Your task to perform on an android device: Open Maps and search for coffee Image 0: 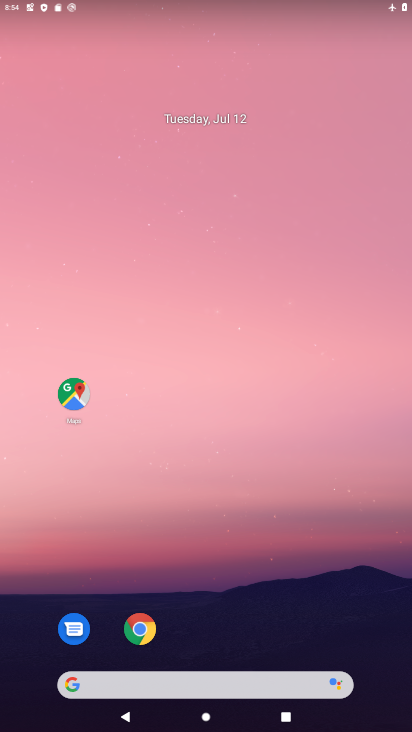
Step 0: drag from (243, 635) to (225, 229)
Your task to perform on an android device: Open Maps and search for coffee Image 1: 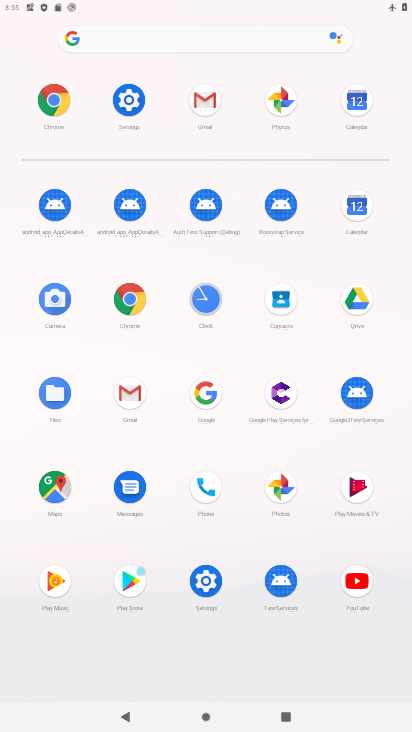
Step 1: click (58, 492)
Your task to perform on an android device: Open Maps and search for coffee Image 2: 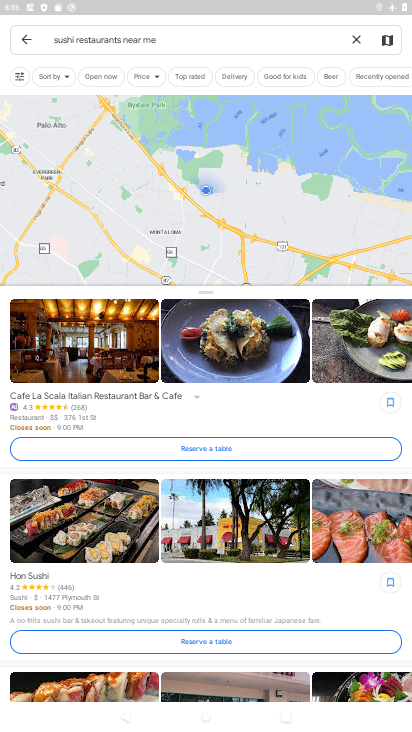
Step 2: click (359, 36)
Your task to perform on an android device: Open Maps and search for coffee Image 3: 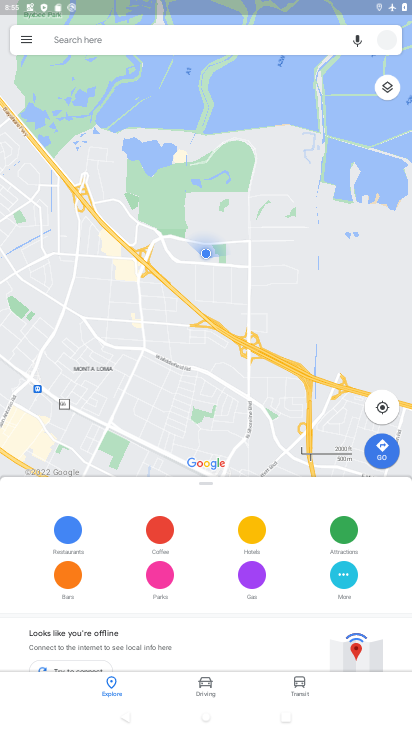
Step 3: click (156, 32)
Your task to perform on an android device: Open Maps and search for coffee Image 4: 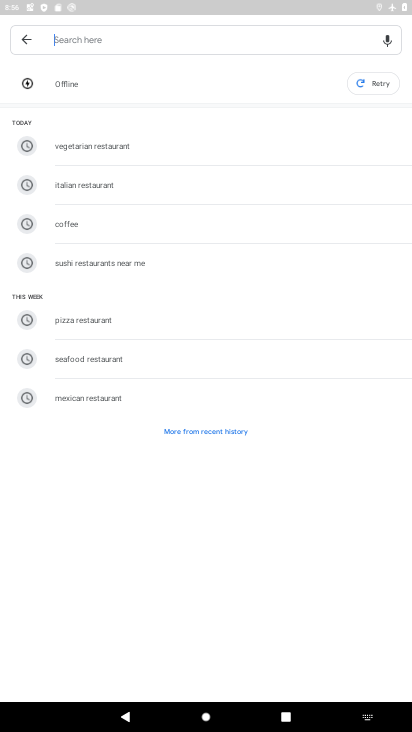
Step 4: click (97, 229)
Your task to perform on an android device: Open Maps and search for coffee Image 5: 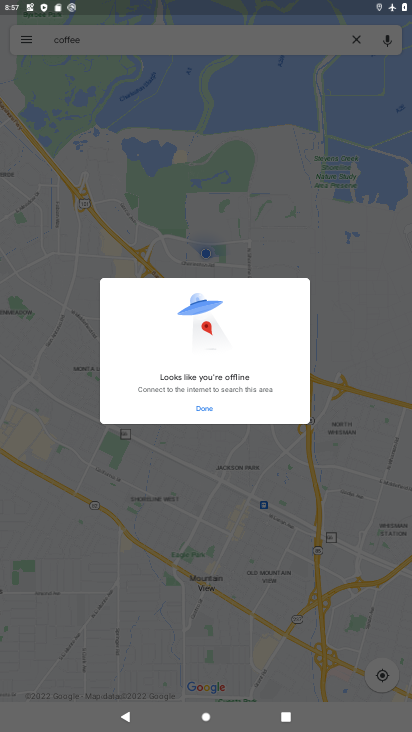
Step 5: click (209, 395)
Your task to perform on an android device: Open Maps and search for coffee Image 6: 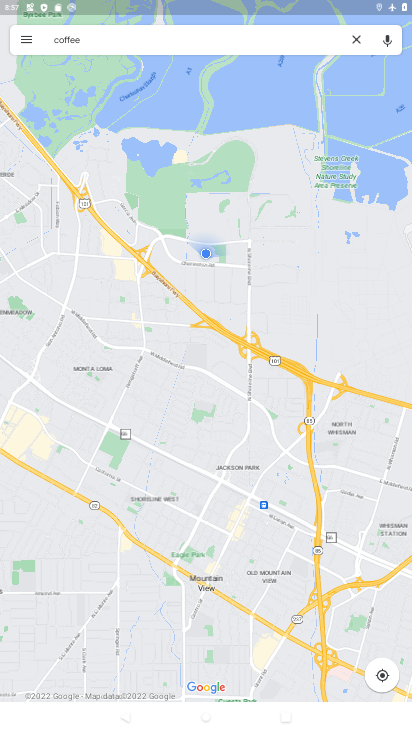
Step 6: task complete